Your task to perform on an android device: Open location settings Image 0: 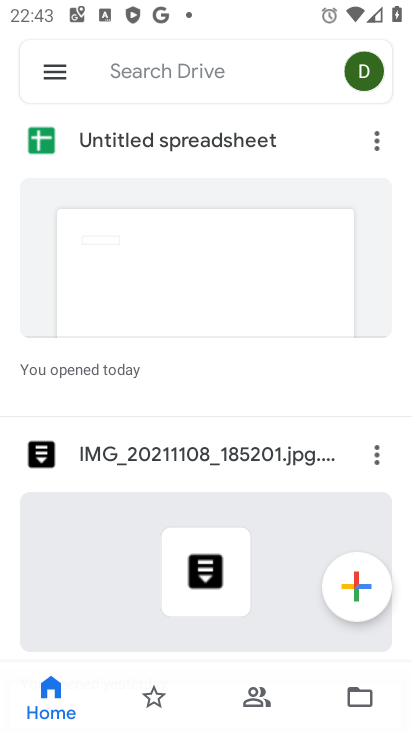
Step 0: press home button
Your task to perform on an android device: Open location settings Image 1: 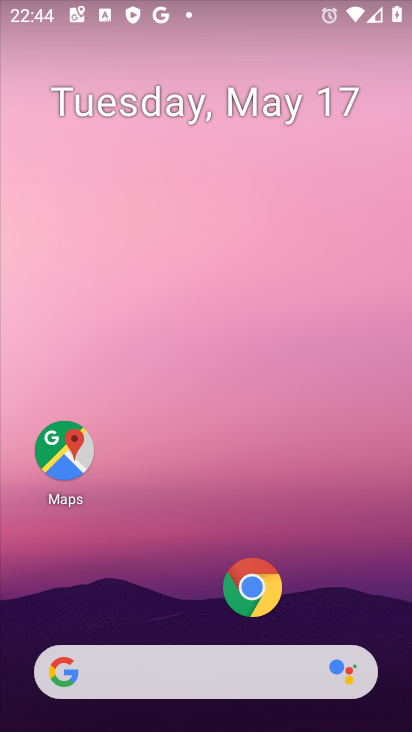
Step 1: drag from (354, 595) to (263, 91)
Your task to perform on an android device: Open location settings Image 2: 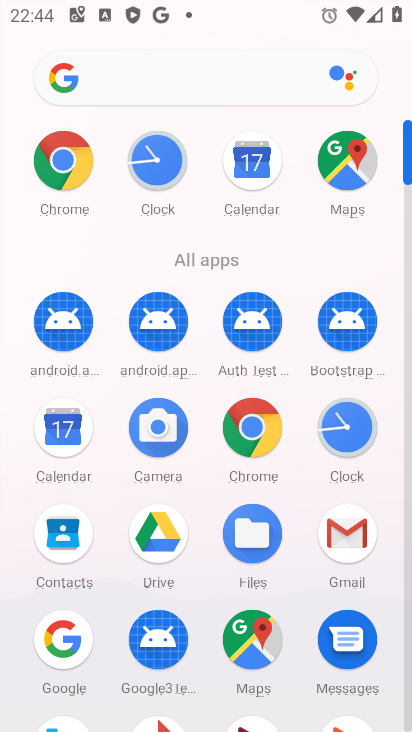
Step 2: drag from (203, 272) to (192, 67)
Your task to perform on an android device: Open location settings Image 3: 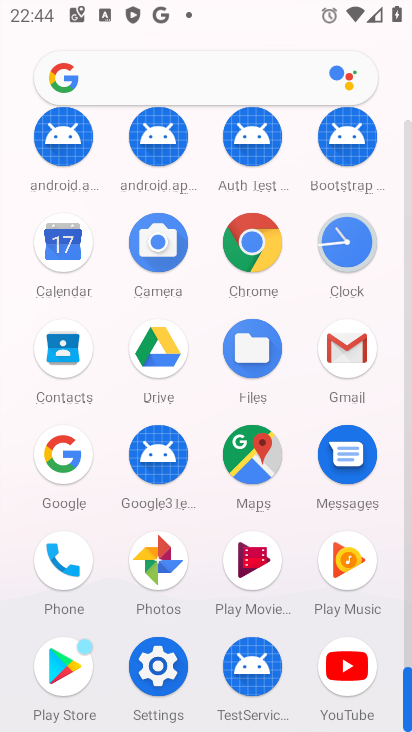
Step 3: click (164, 661)
Your task to perform on an android device: Open location settings Image 4: 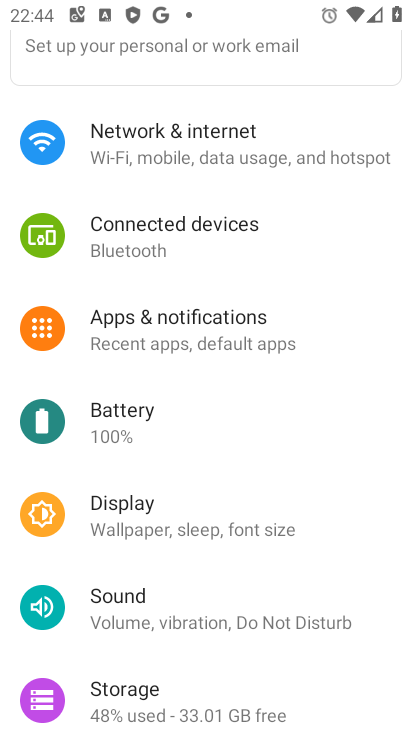
Step 4: drag from (125, 576) to (71, 315)
Your task to perform on an android device: Open location settings Image 5: 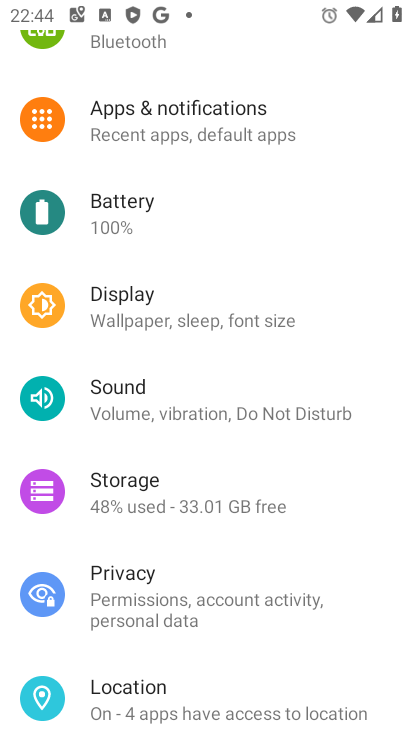
Step 5: click (123, 695)
Your task to perform on an android device: Open location settings Image 6: 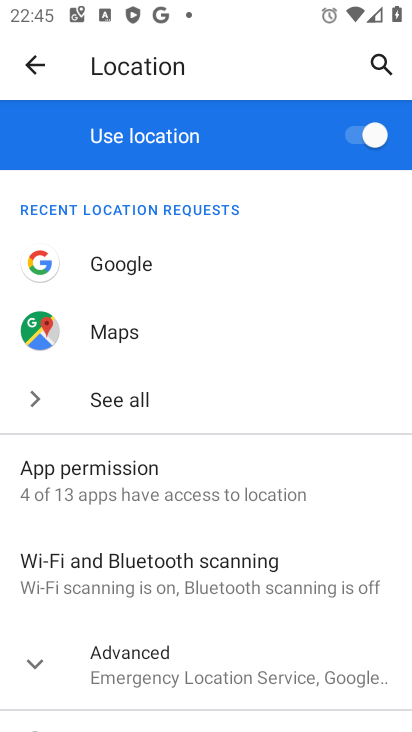
Step 6: task complete